Your task to perform on an android device: Open wifi settings Image 0: 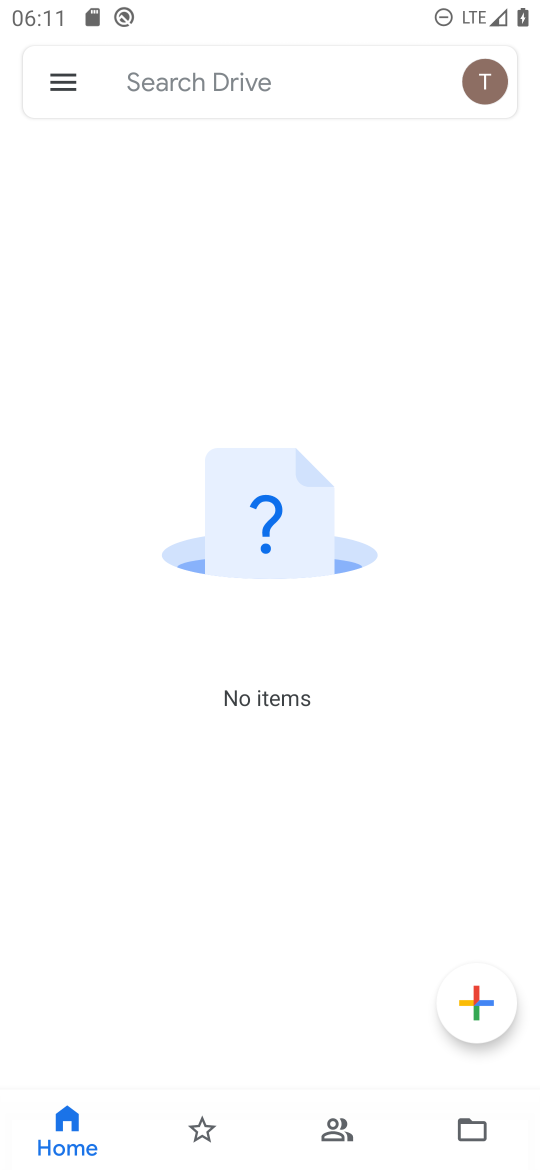
Step 0: press home button
Your task to perform on an android device: Open wifi settings Image 1: 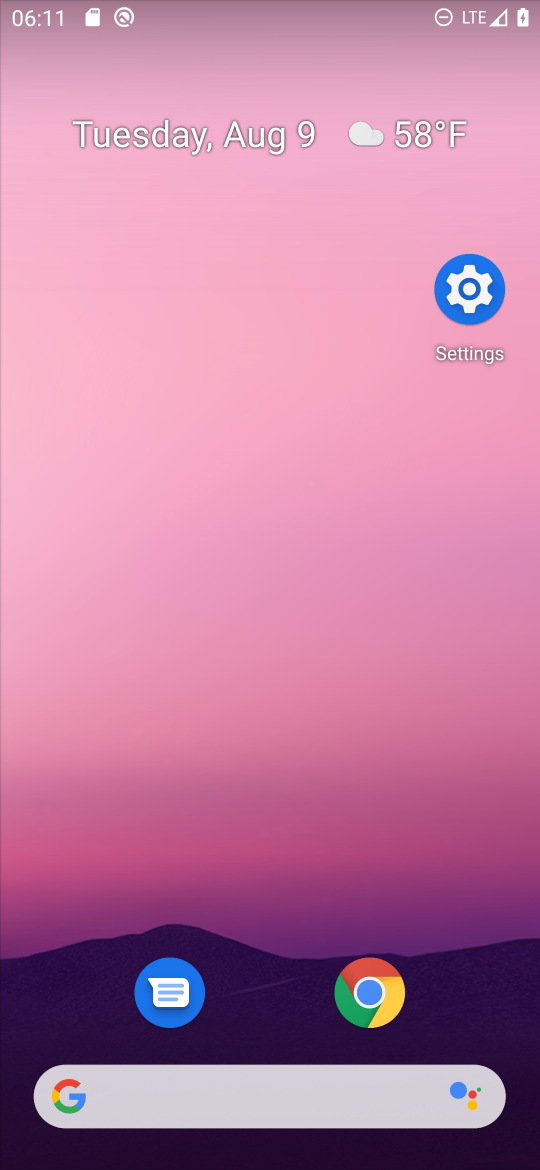
Step 1: drag from (231, 1093) to (507, 35)
Your task to perform on an android device: Open wifi settings Image 2: 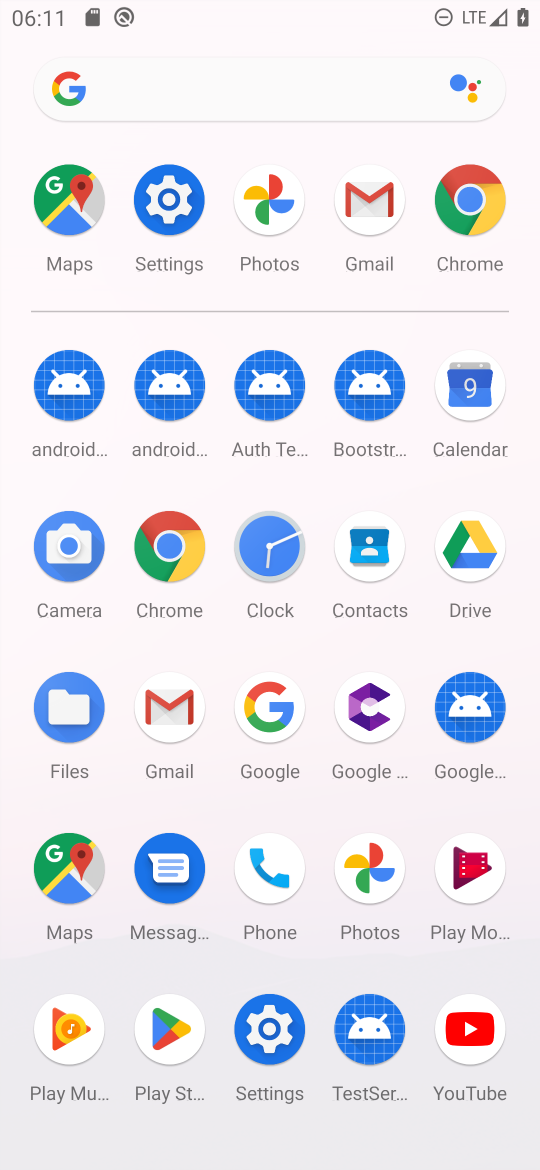
Step 2: click (137, 191)
Your task to perform on an android device: Open wifi settings Image 3: 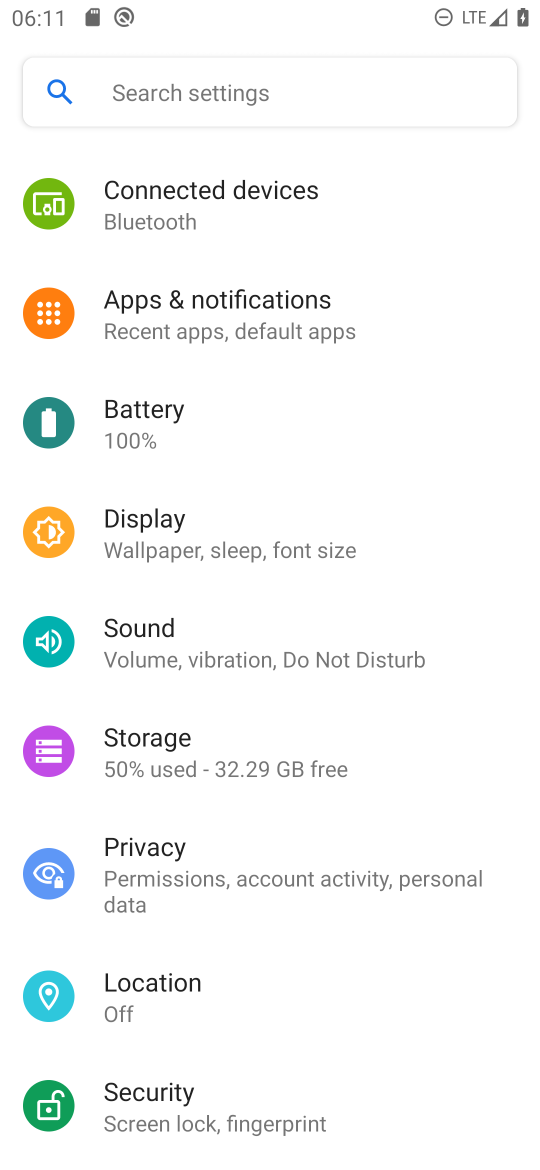
Step 3: drag from (456, 312) to (536, 669)
Your task to perform on an android device: Open wifi settings Image 4: 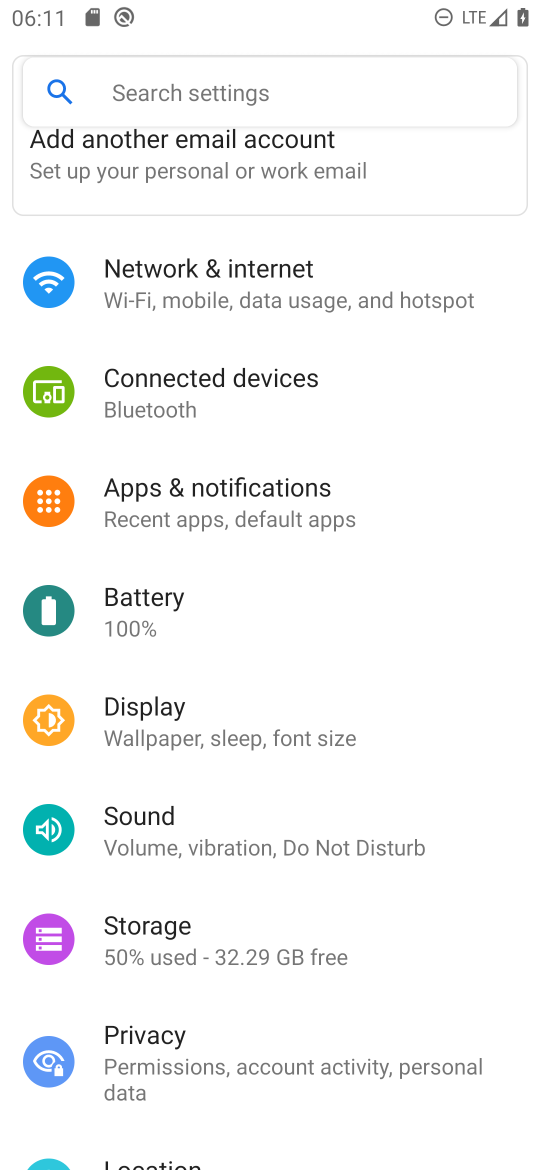
Step 4: click (343, 270)
Your task to perform on an android device: Open wifi settings Image 5: 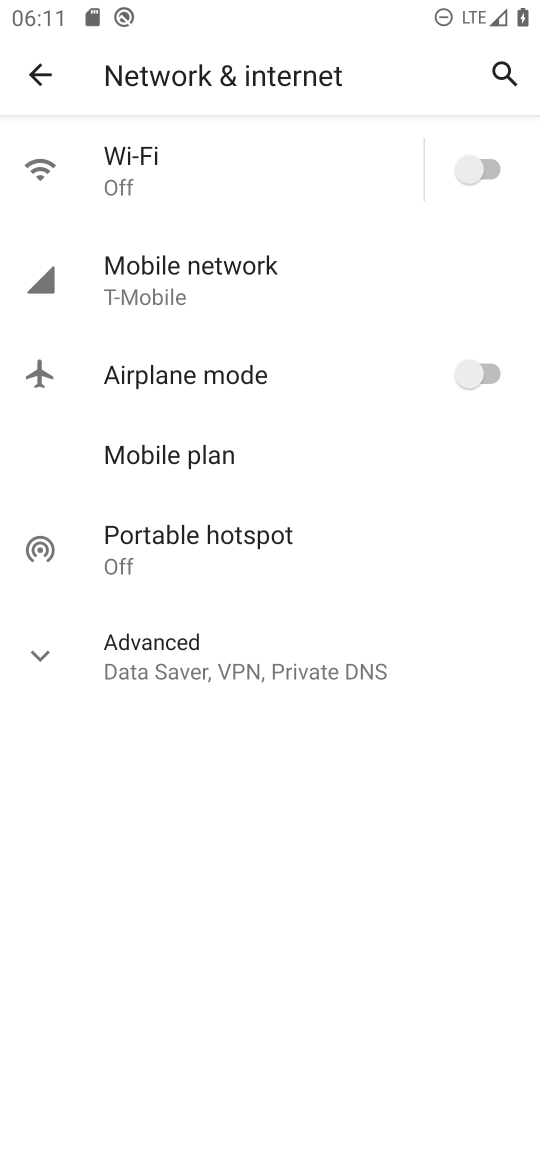
Step 5: click (150, 167)
Your task to perform on an android device: Open wifi settings Image 6: 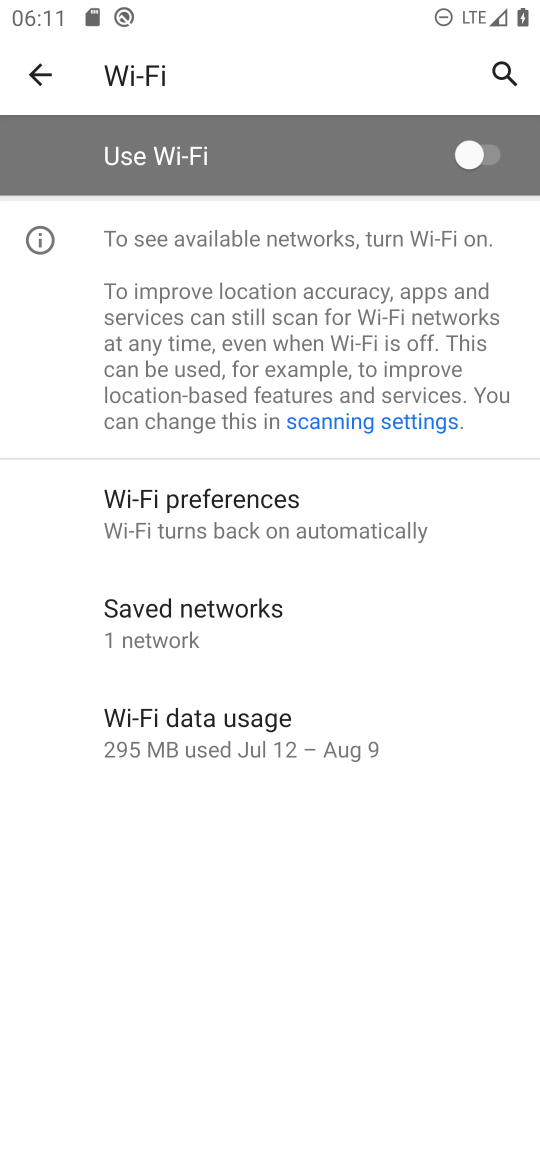
Step 6: task complete